Your task to perform on an android device: change notifications settings Image 0: 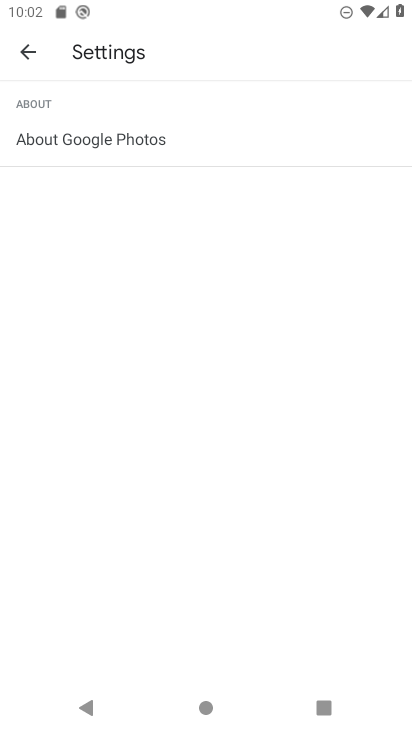
Step 0: drag from (257, 525) to (408, 237)
Your task to perform on an android device: change notifications settings Image 1: 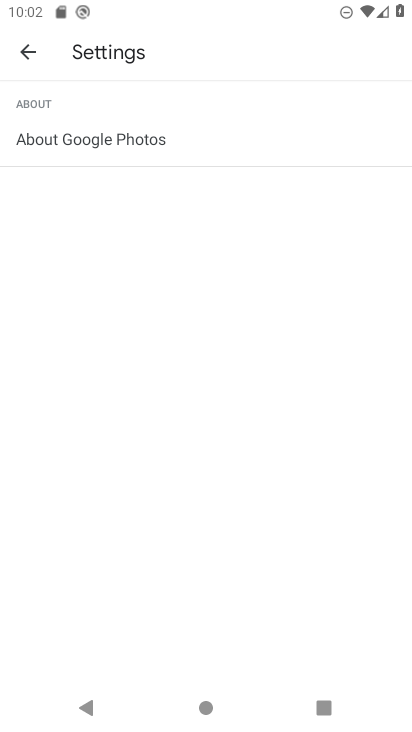
Step 1: press home button
Your task to perform on an android device: change notifications settings Image 2: 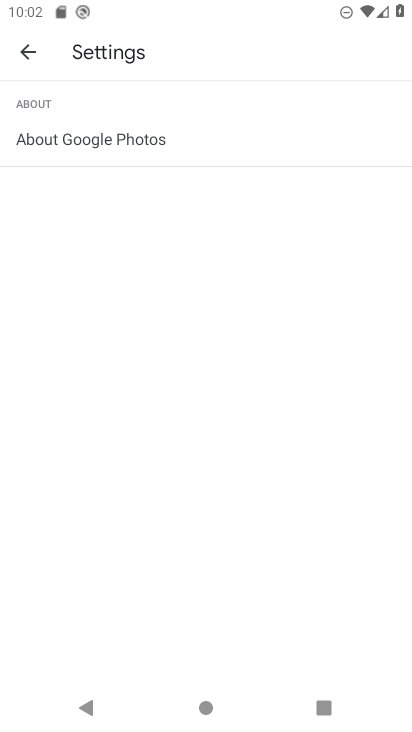
Step 2: drag from (408, 237) to (405, 551)
Your task to perform on an android device: change notifications settings Image 3: 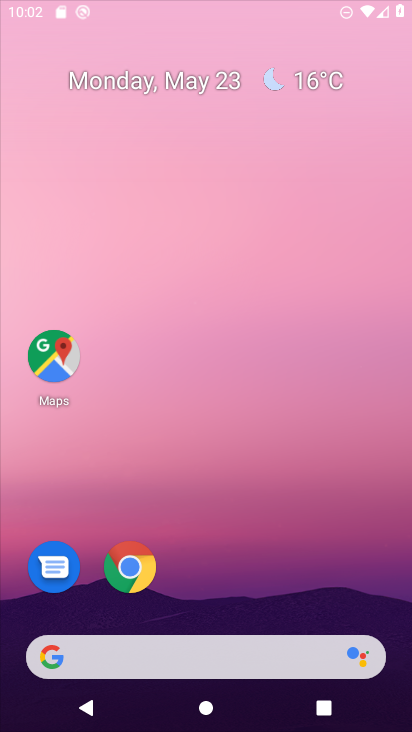
Step 3: drag from (272, 553) to (306, 15)
Your task to perform on an android device: change notifications settings Image 4: 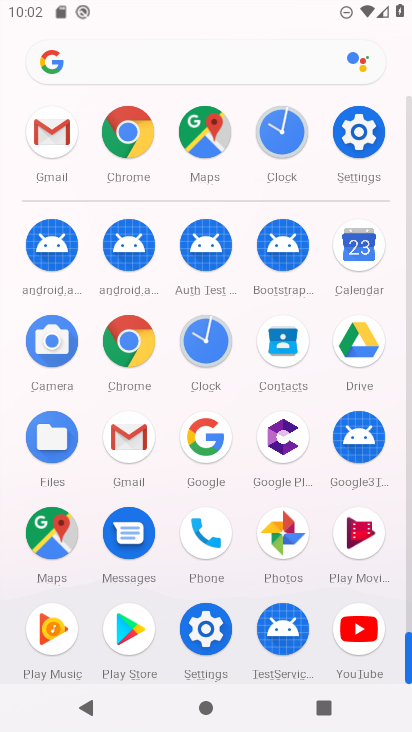
Step 4: click (354, 125)
Your task to perform on an android device: change notifications settings Image 5: 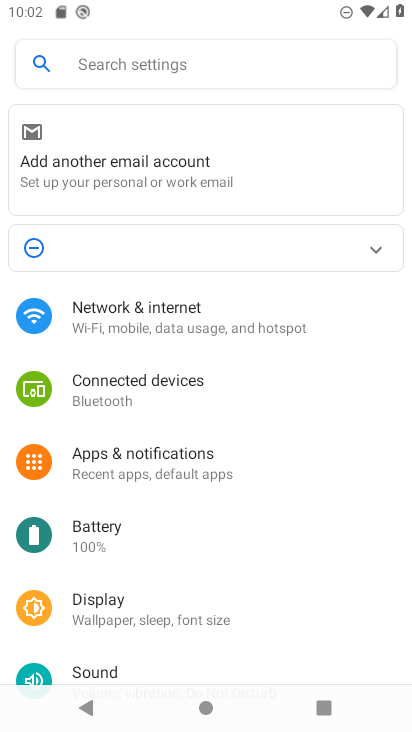
Step 5: drag from (145, 531) to (247, 177)
Your task to perform on an android device: change notifications settings Image 6: 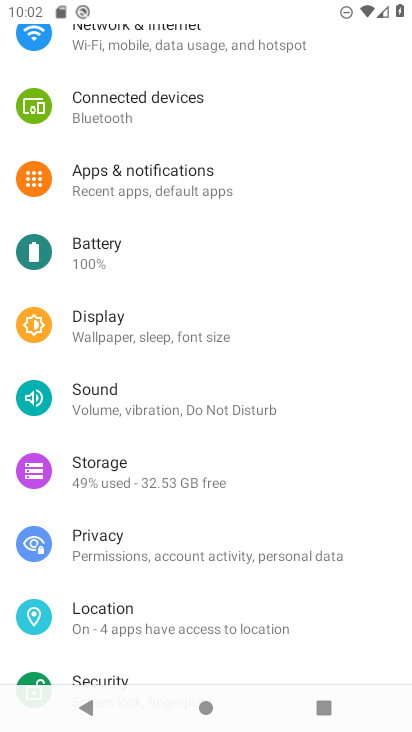
Step 6: click (109, 180)
Your task to perform on an android device: change notifications settings Image 7: 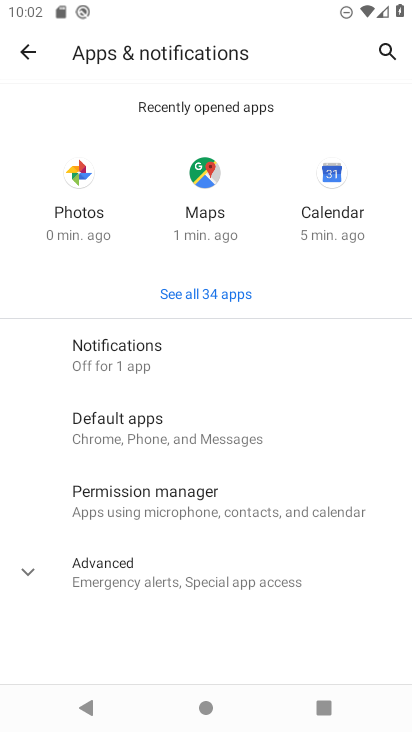
Step 7: drag from (233, 432) to (277, 178)
Your task to perform on an android device: change notifications settings Image 8: 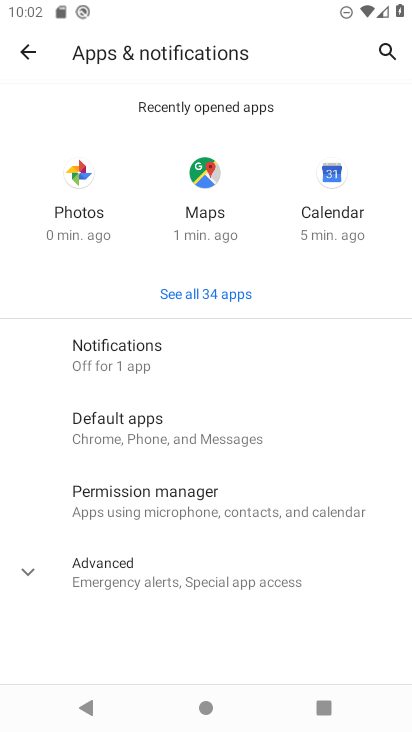
Step 8: drag from (169, 509) to (273, 219)
Your task to perform on an android device: change notifications settings Image 9: 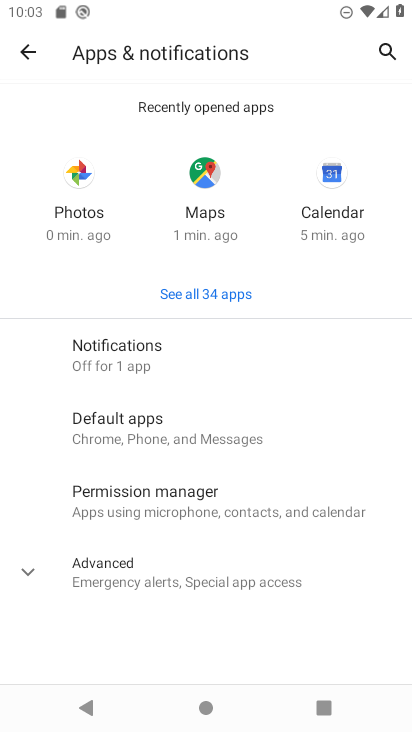
Step 9: click (172, 337)
Your task to perform on an android device: change notifications settings Image 10: 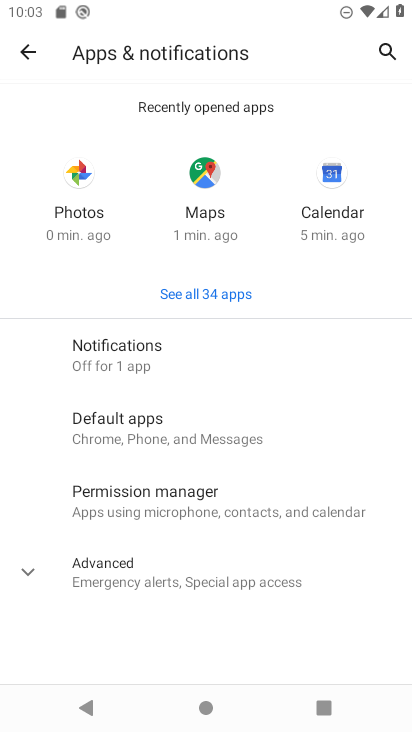
Step 10: click (173, 337)
Your task to perform on an android device: change notifications settings Image 11: 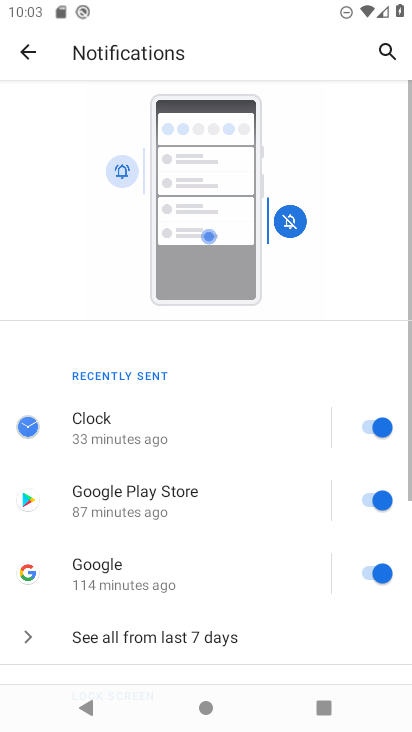
Step 11: drag from (203, 468) to (304, 2)
Your task to perform on an android device: change notifications settings Image 12: 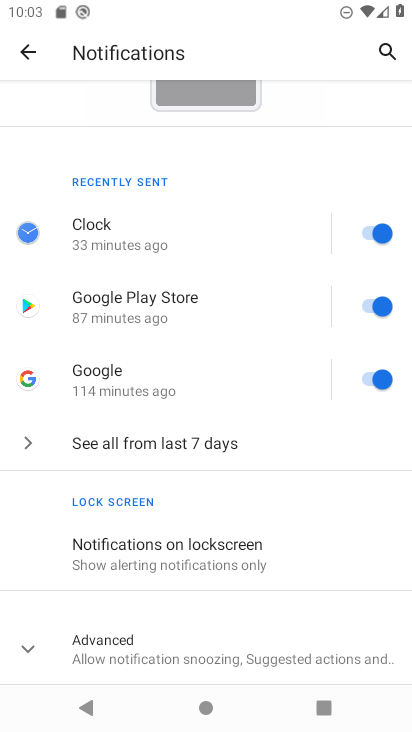
Step 12: click (372, 378)
Your task to perform on an android device: change notifications settings Image 13: 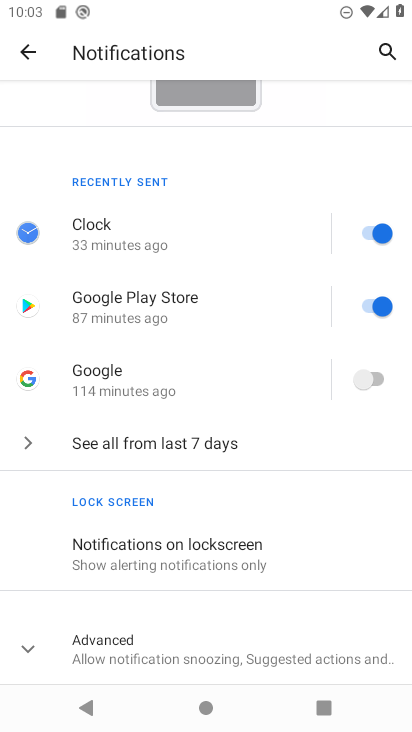
Step 13: task complete